Your task to perform on an android device: star an email in the gmail app Image 0: 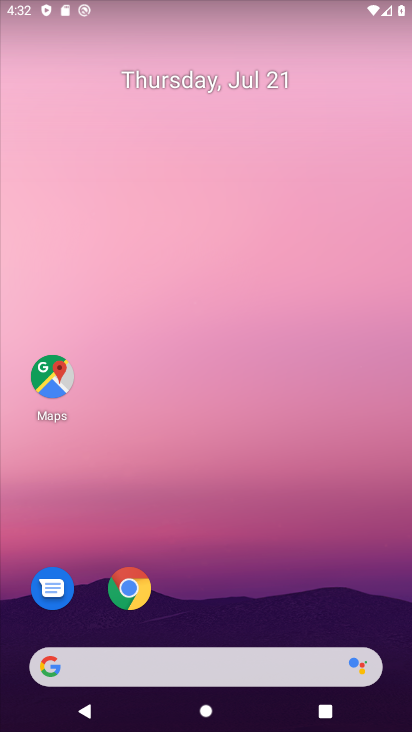
Step 0: drag from (237, 529) to (280, 150)
Your task to perform on an android device: star an email in the gmail app Image 1: 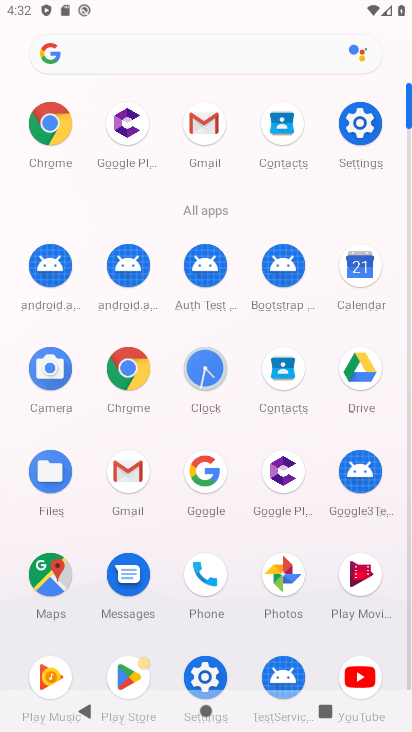
Step 1: click (126, 475)
Your task to perform on an android device: star an email in the gmail app Image 2: 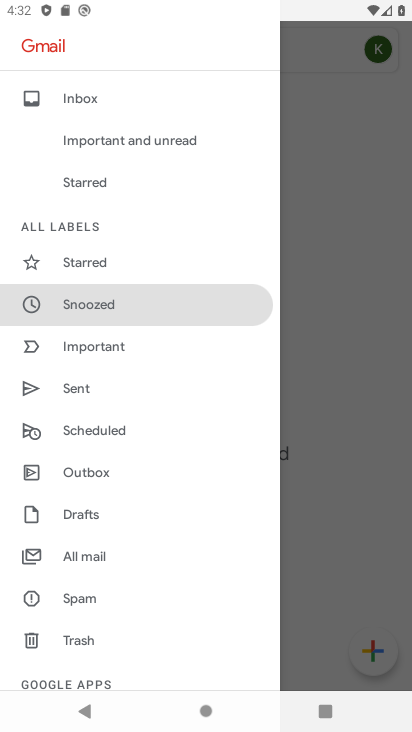
Step 2: click (88, 255)
Your task to perform on an android device: star an email in the gmail app Image 3: 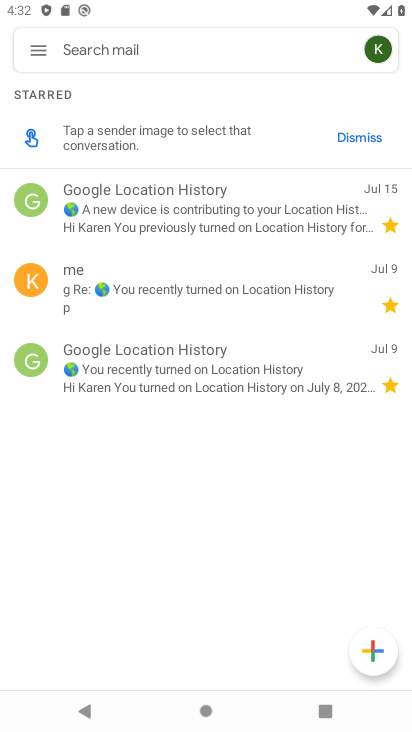
Step 3: task complete